Your task to perform on an android device: Show the shopping cart on costco. Add "macbook" to the cart on costco Image 0: 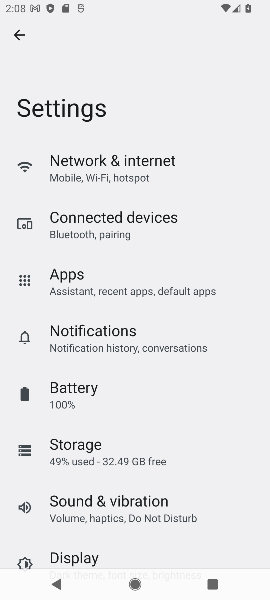
Step 0: press home button
Your task to perform on an android device: Show the shopping cart on costco. Add "macbook" to the cart on costco Image 1: 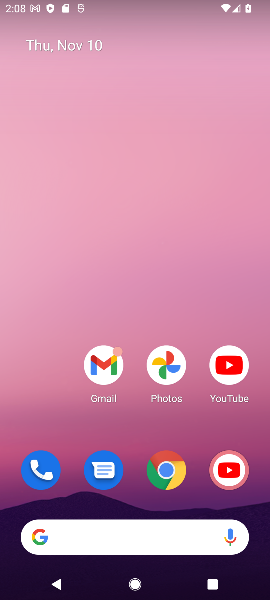
Step 1: click (167, 472)
Your task to perform on an android device: Show the shopping cart on costco. Add "macbook" to the cart on costco Image 2: 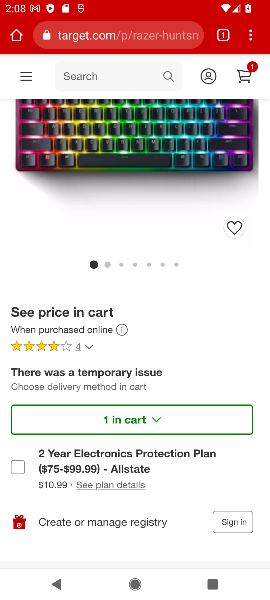
Step 2: click (143, 40)
Your task to perform on an android device: Show the shopping cart on costco. Add "macbook" to the cart on costco Image 3: 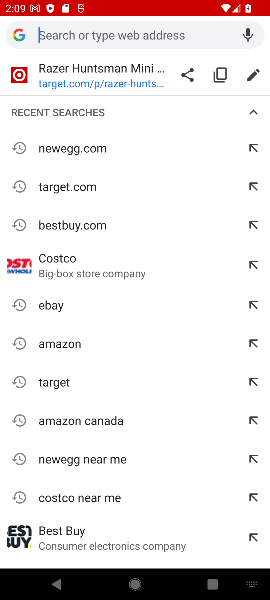
Step 3: type "costco"
Your task to perform on an android device: Show the shopping cart on costco. Add "macbook" to the cart on costco Image 4: 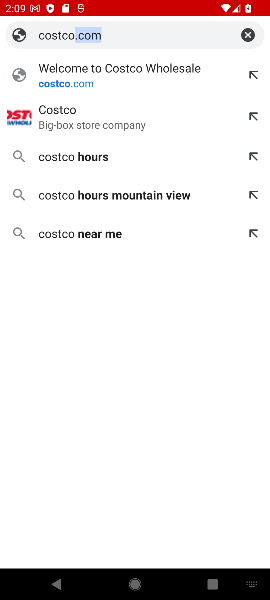
Step 4: click (70, 109)
Your task to perform on an android device: Show the shopping cart on costco. Add "macbook" to the cart on costco Image 5: 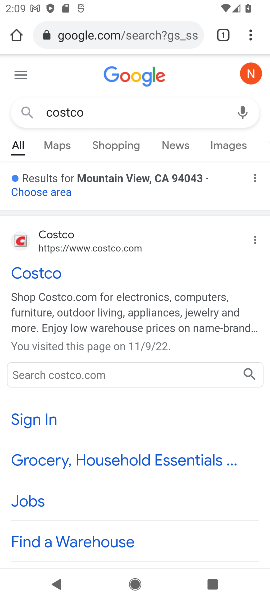
Step 5: click (80, 244)
Your task to perform on an android device: Show the shopping cart on costco. Add "macbook" to the cart on costco Image 6: 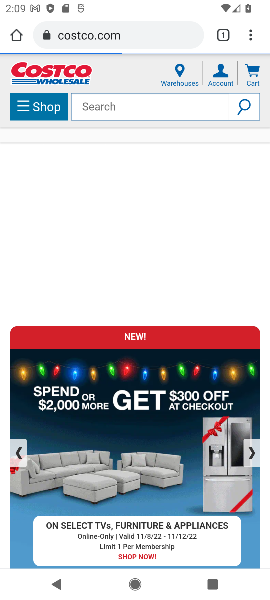
Step 6: drag from (170, 442) to (210, 198)
Your task to perform on an android device: Show the shopping cart on costco. Add "macbook" to the cart on costco Image 7: 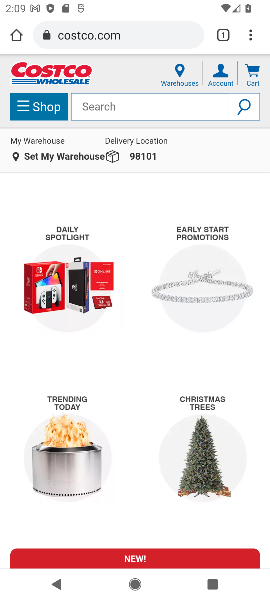
Step 7: click (159, 101)
Your task to perform on an android device: Show the shopping cart on costco. Add "macbook" to the cart on costco Image 8: 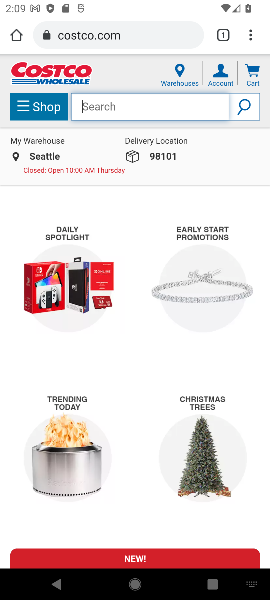
Step 8: type "macbook"
Your task to perform on an android device: Show the shopping cart on costco. Add "macbook" to the cart on costco Image 9: 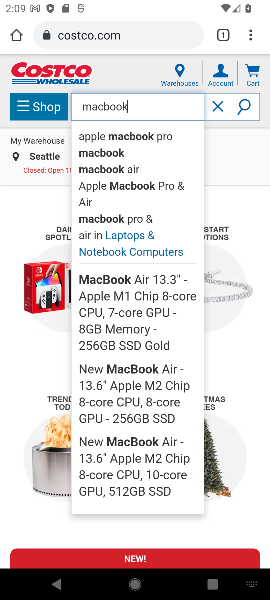
Step 9: click (247, 108)
Your task to perform on an android device: Show the shopping cart on costco. Add "macbook" to the cart on costco Image 10: 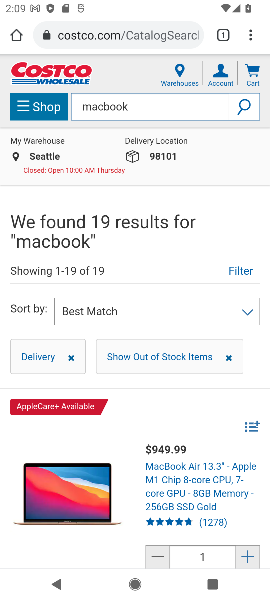
Step 10: click (194, 465)
Your task to perform on an android device: Show the shopping cart on costco. Add "macbook" to the cart on costco Image 11: 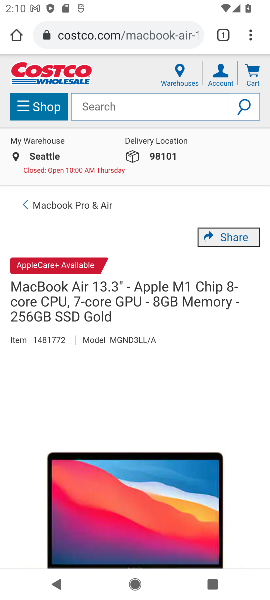
Step 11: drag from (208, 475) to (235, 197)
Your task to perform on an android device: Show the shopping cart on costco. Add "macbook" to the cart on costco Image 12: 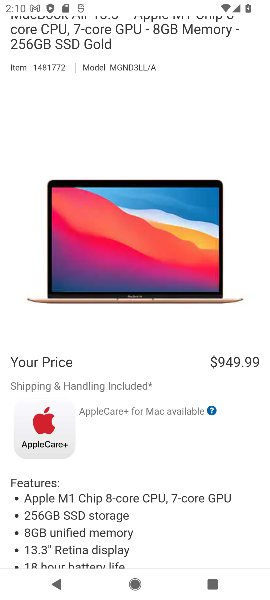
Step 12: drag from (183, 426) to (203, 199)
Your task to perform on an android device: Show the shopping cart on costco. Add "macbook" to the cart on costco Image 13: 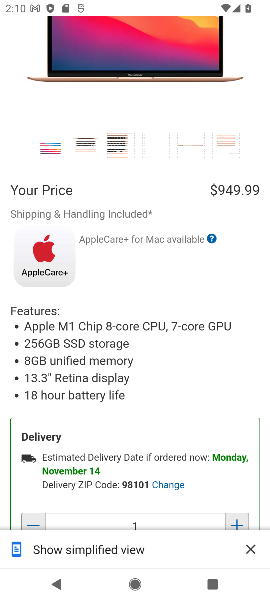
Step 13: drag from (184, 429) to (214, 226)
Your task to perform on an android device: Show the shopping cart on costco. Add "macbook" to the cart on costco Image 14: 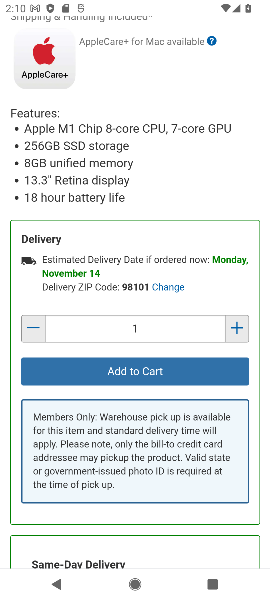
Step 14: click (155, 366)
Your task to perform on an android device: Show the shopping cart on costco. Add "macbook" to the cart on costco Image 15: 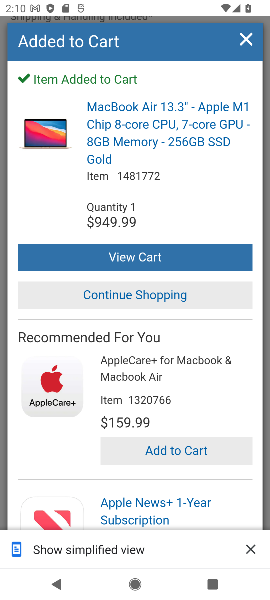
Step 15: click (163, 249)
Your task to perform on an android device: Show the shopping cart on costco. Add "macbook" to the cart on costco Image 16: 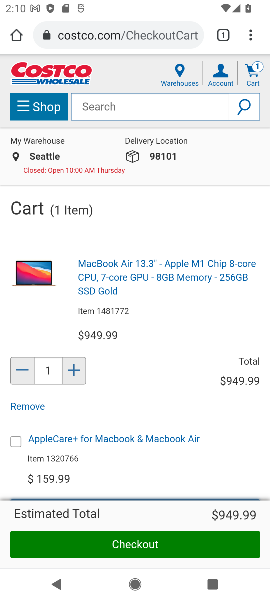
Step 16: task complete